Your task to perform on an android device: Open the stopwatch Image 0: 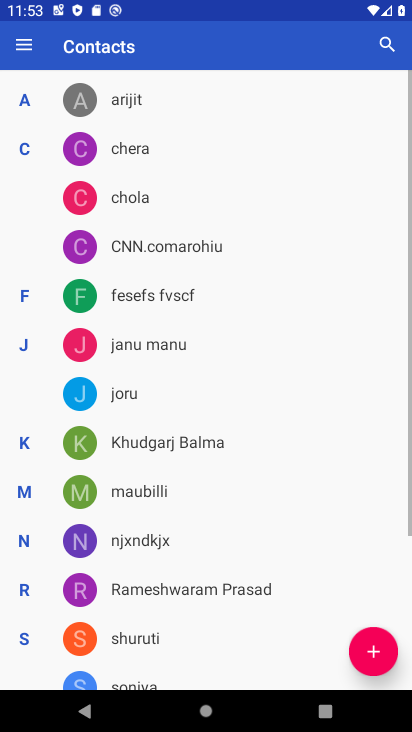
Step 0: drag from (245, 658) to (409, 197)
Your task to perform on an android device: Open the stopwatch Image 1: 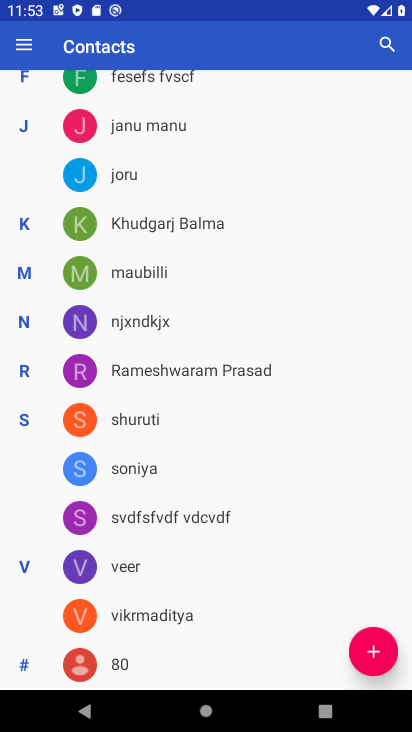
Step 1: press home button
Your task to perform on an android device: Open the stopwatch Image 2: 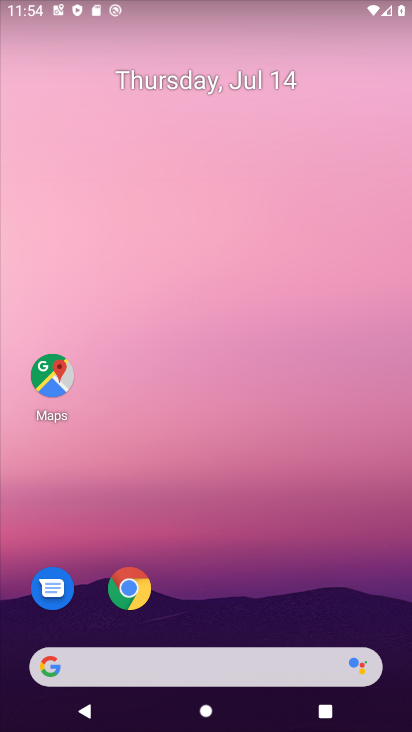
Step 2: drag from (143, 636) to (219, 0)
Your task to perform on an android device: Open the stopwatch Image 3: 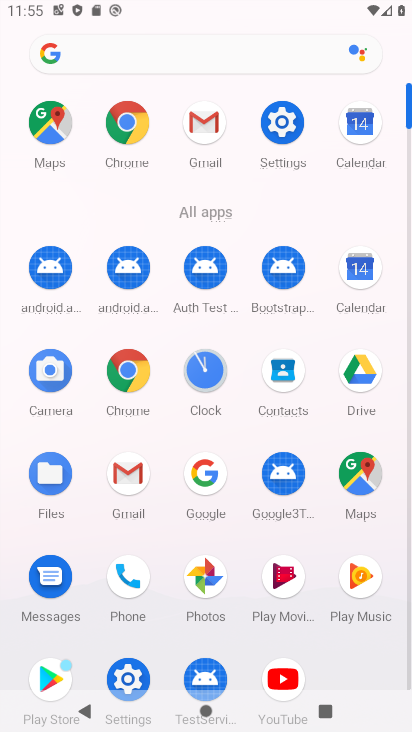
Step 3: click (206, 382)
Your task to perform on an android device: Open the stopwatch Image 4: 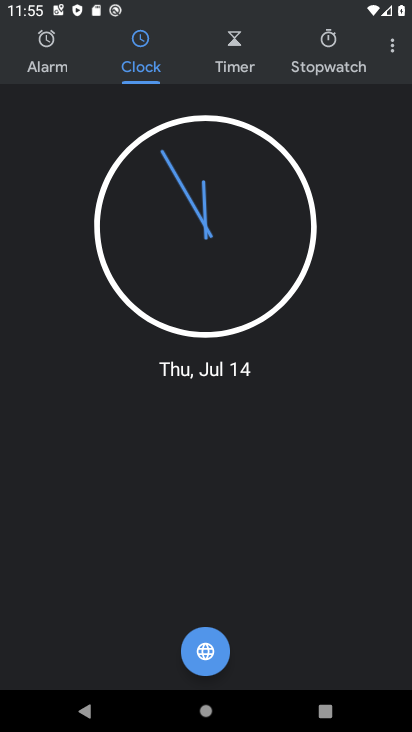
Step 4: click (346, 55)
Your task to perform on an android device: Open the stopwatch Image 5: 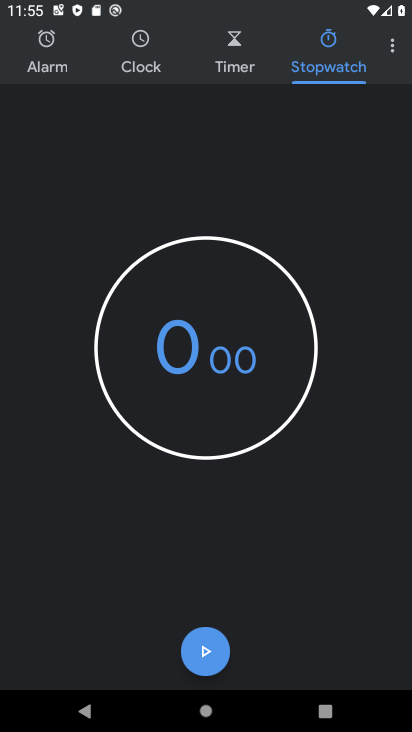
Step 5: task complete